Your task to perform on an android device: turn on notifications settings in the gmail app Image 0: 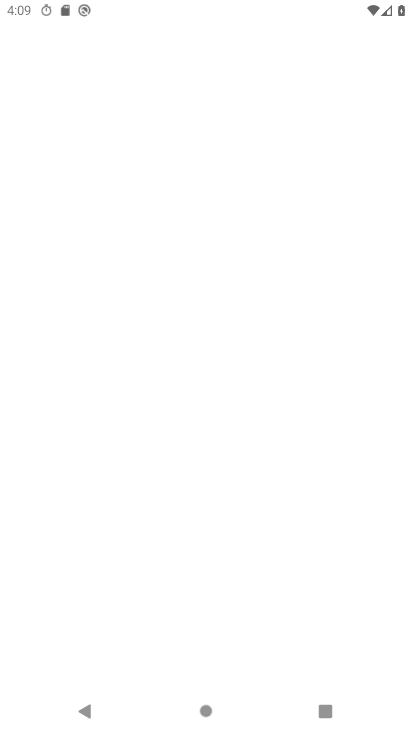
Step 0: click (134, 582)
Your task to perform on an android device: turn on notifications settings in the gmail app Image 1: 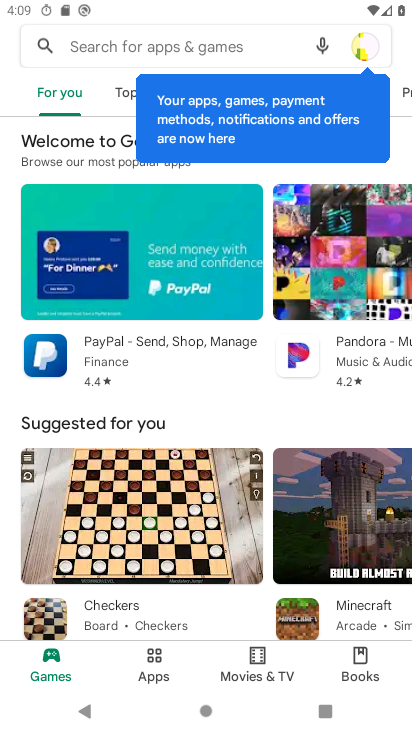
Step 1: press home button
Your task to perform on an android device: turn on notifications settings in the gmail app Image 2: 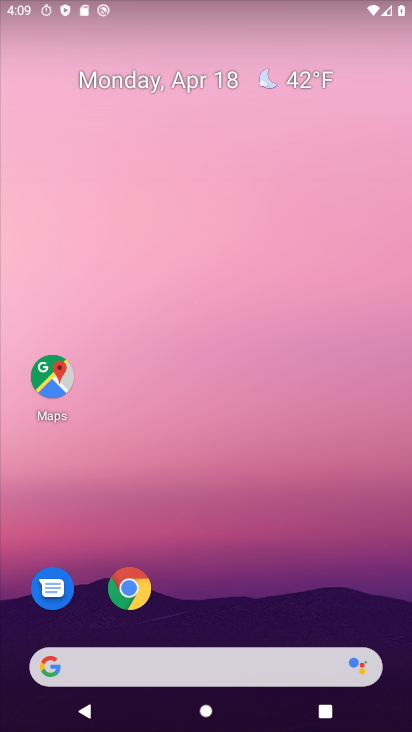
Step 2: drag from (177, 519) to (170, 81)
Your task to perform on an android device: turn on notifications settings in the gmail app Image 3: 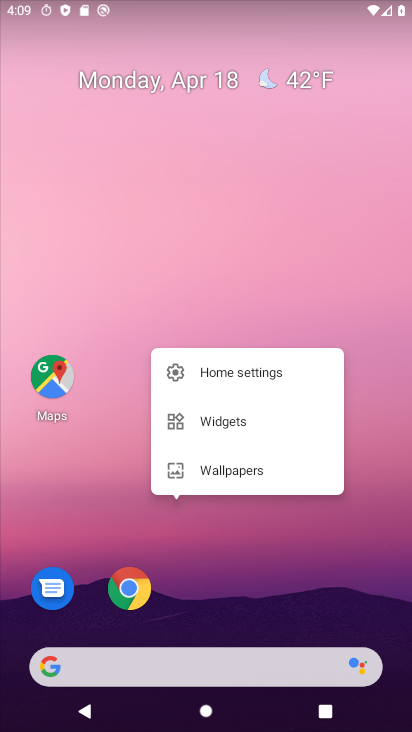
Step 3: drag from (212, 237) to (172, 36)
Your task to perform on an android device: turn on notifications settings in the gmail app Image 4: 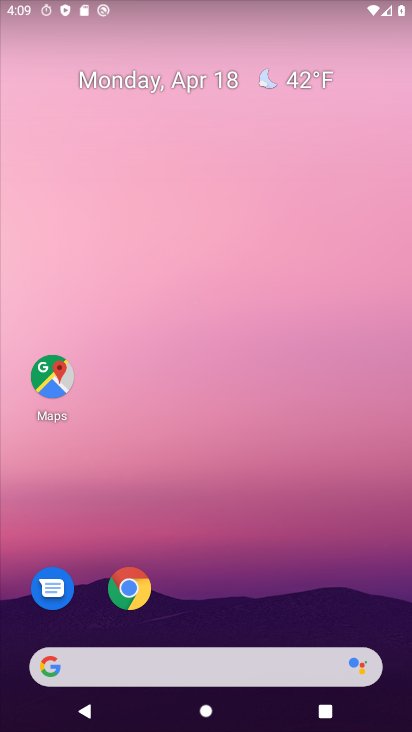
Step 4: drag from (219, 622) to (249, 1)
Your task to perform on an android device: turn on notifications settings in the gmail app Image 5: 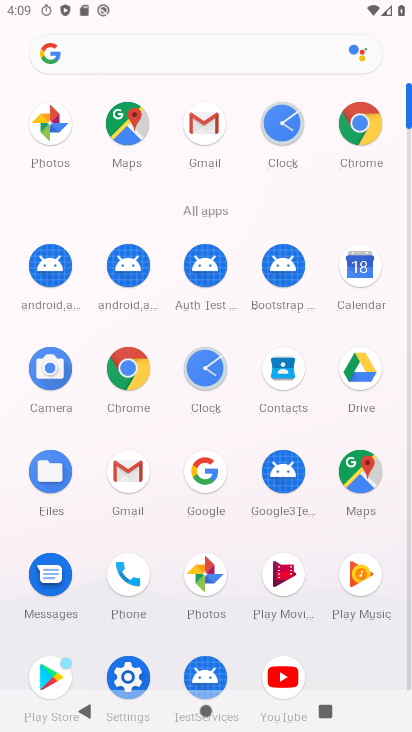
Step 5: click (116, 467)
Your task to perform on an android device: turn on notifications settings in the gmail app Image 6: 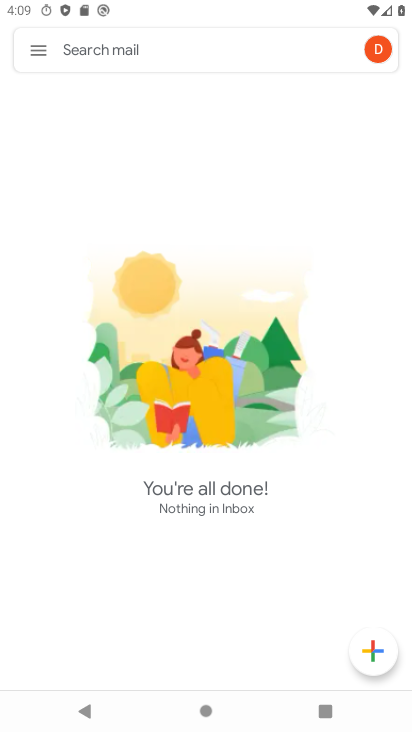
Step 6: click (44, 43)
Your task to perform on an android device: turn on notifications settings in the gmail app Image 7: 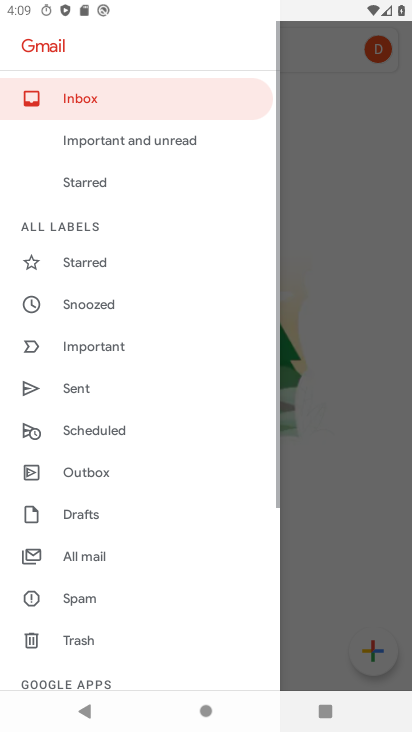
Step 7: drag from (32, 641) to (264, 27)
Your task to perform on an android device: turn on notifications settings in the gmail app Image 8: 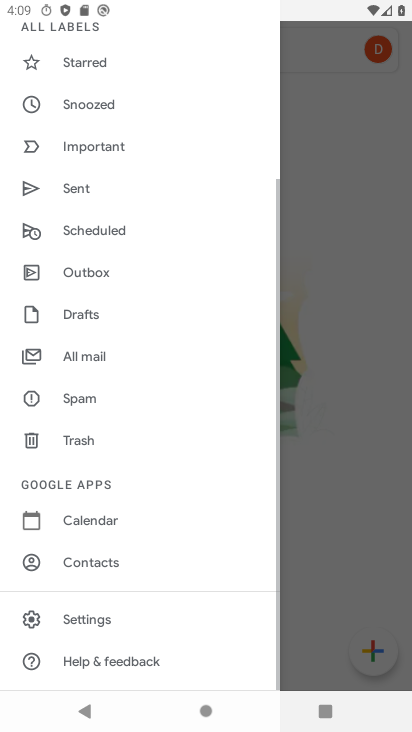
Step 8: click (114, 617)
Your task to perform on an android device: turn on notifications settings in the gmail app Image 9: 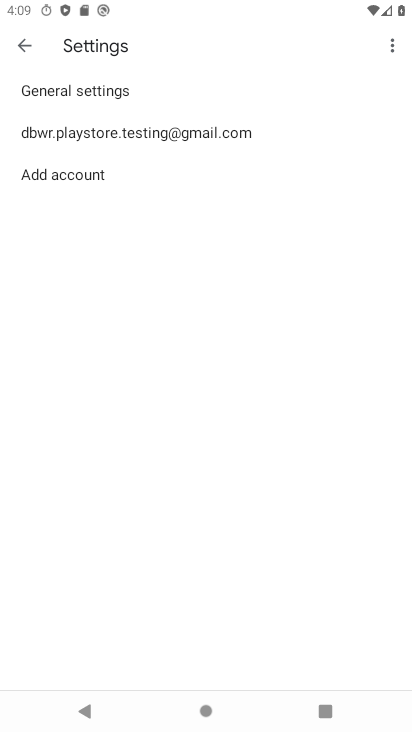
Step 9: click (196, 143)
Your task to perform on an android device: turn on notifications settings in the gmail app Image 10: 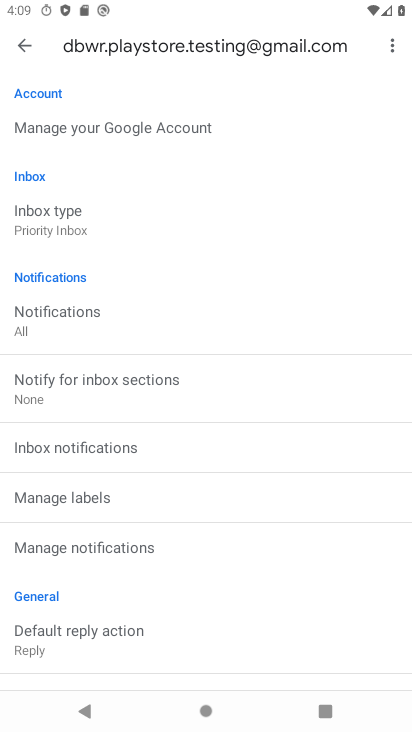
Step 10: click (134, 330)
Your task to perform on an android device: turn on notifications settings in the gmail app Image 11: 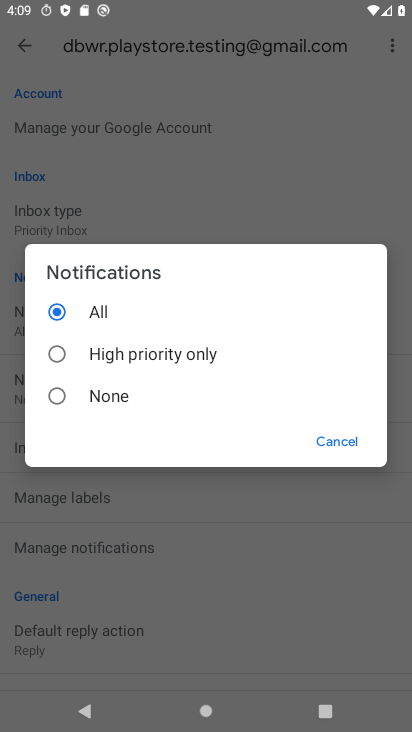
Step 11: task complete